Your task to perform on an android device: make emails show in primary in the gmail app Image 0: 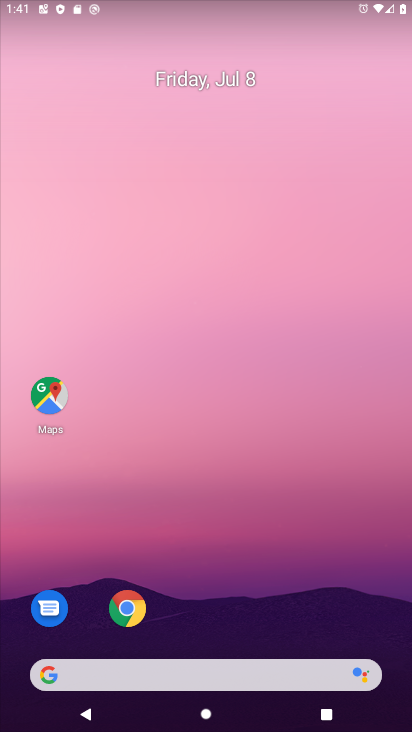
Step 0: click (138, 603)
Your task to perform on an android device: make emails show in primary in the gmail app Image 1: 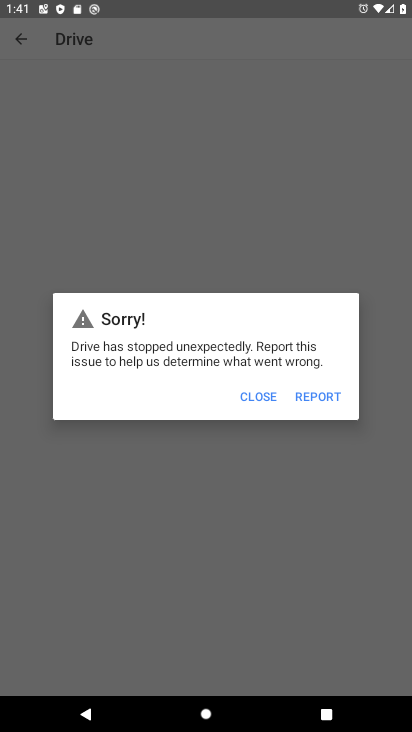
Step 1: press home button
Your task to perform on an android device: make emails show in primary in the gmail app Image 2: 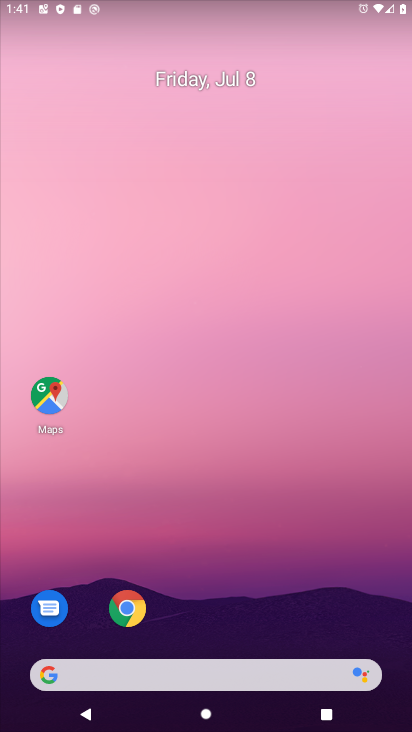
Step 2: drag from (202, 621) to (325, 7)
Your task to perform on an android device: make emails show in primary in the gmail app Image 3: 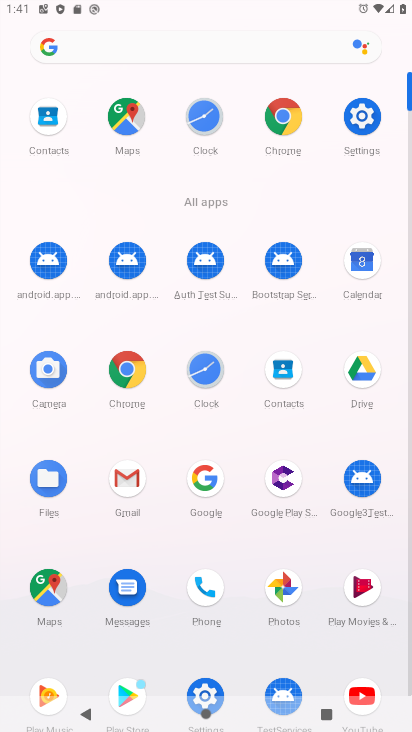
Step 3: click (125, 475)
Your task to perform on an android device: make emails show in primary in the gmail app Image 4: 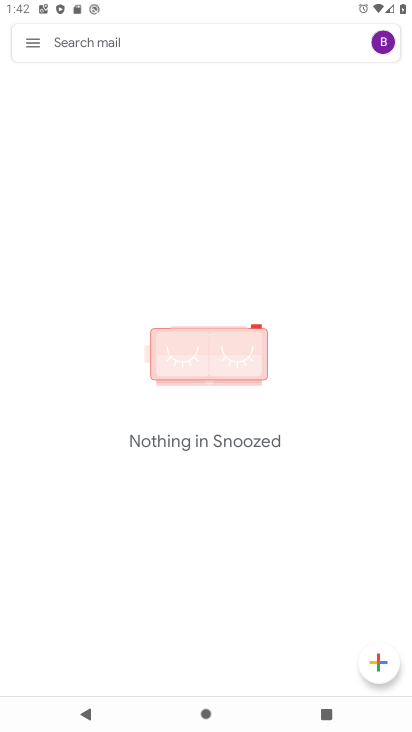
Step 4: click (29, 40)
Your task to perform on an android device: make emails show in primary in the gmail app Image 5: 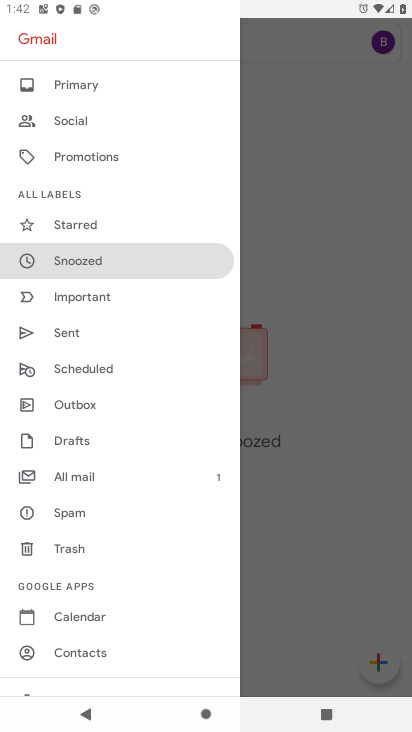
Step 5: click (88, 82)
Your task to perform on an android device: make emails show in primary in the gmail app Image 6: 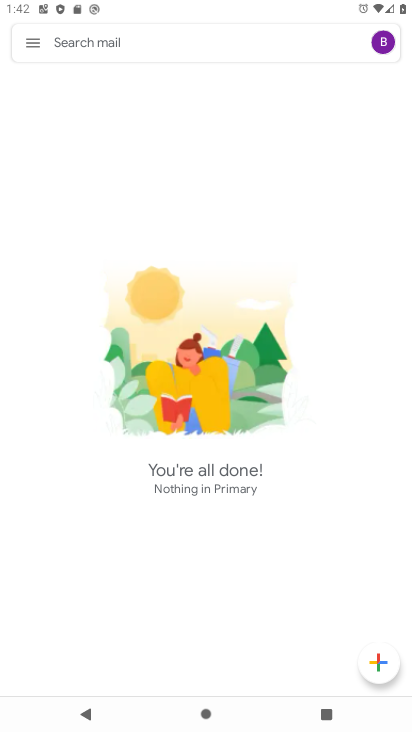
Step 6: task complete